Your task to perform on an android device: Go to ESPN.com Image 0: 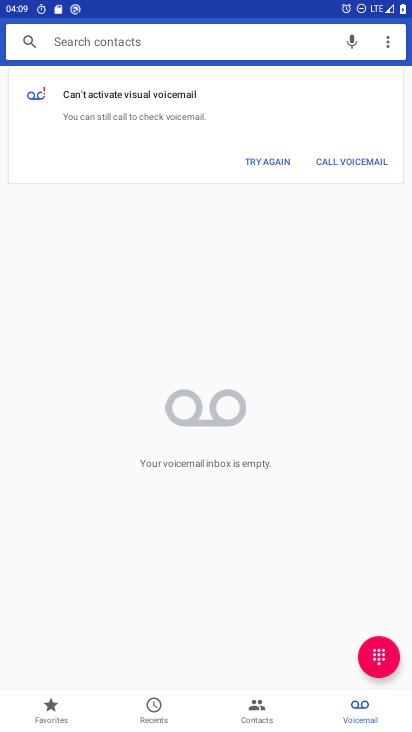
Step 0: press home button
Your task to perform on an android device: Go to ESPN.com Image 1: 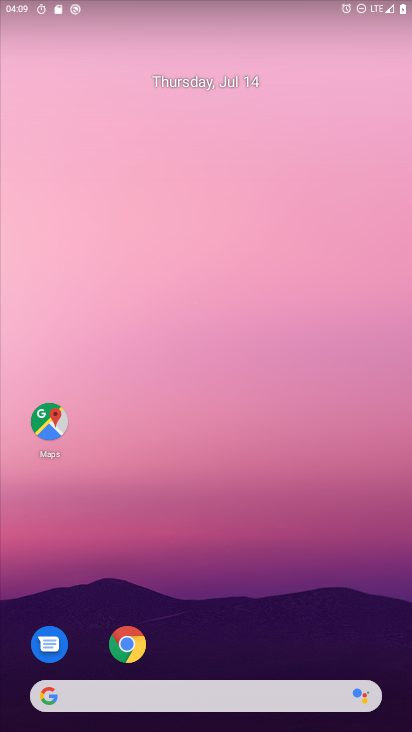
Step 1: drag from (281, 642) to (281, 78)
Your task to perform on an android device: Go to ESPN.com Image 2: 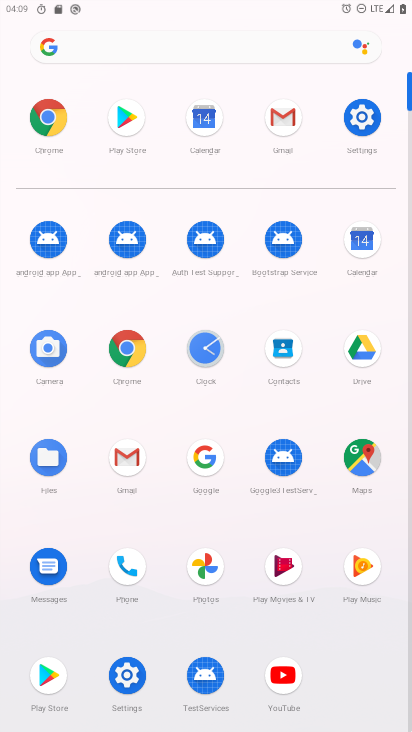
Step 2: click (129, 350)
Your task to perform on an android device: Go to ESPN.com Image 3: 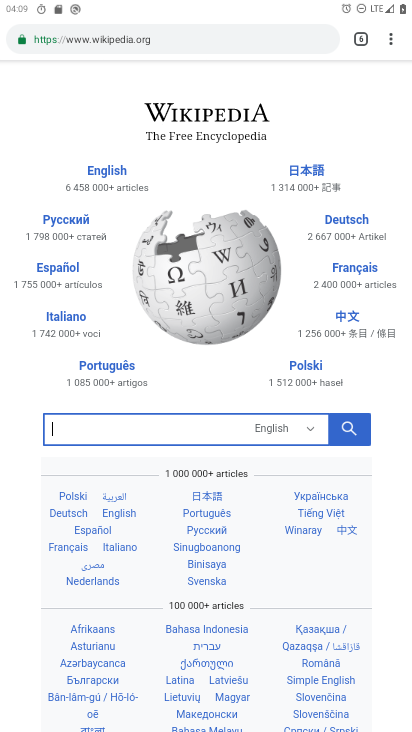
Step 3: click (236, 40)
Your task to perform on an android device: Go to ESPN.com Image 4: 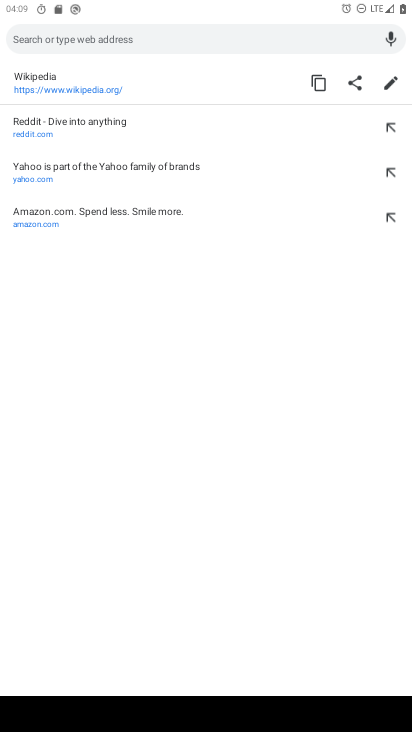
Step 4: type "espn.com"
Your task to perform on an android device: Go to ESPN.com Image 5: 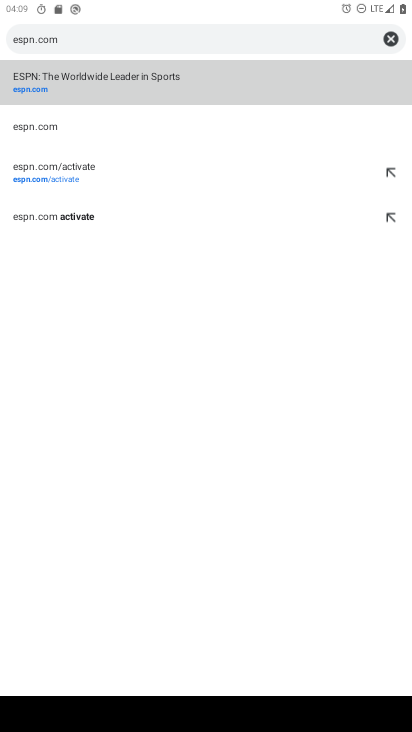
Step 5: click (41, 75)
Your task to perform on an android device: Go to ESPN.com Image 6: 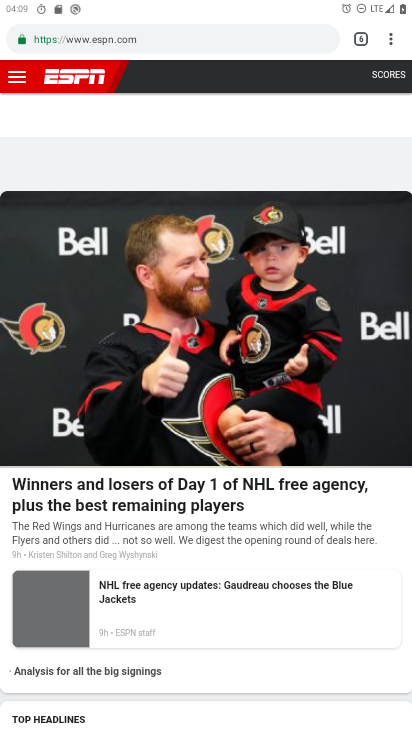
Step 6: task complete